Your task to perform on an android device: turn off airplane mode Image 0: 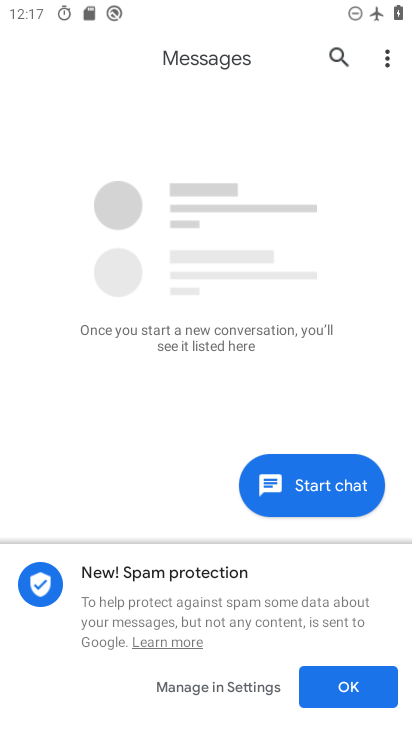
Step 0: press home button
Your task to perform on an android device: turn off airplane mode Image 1: 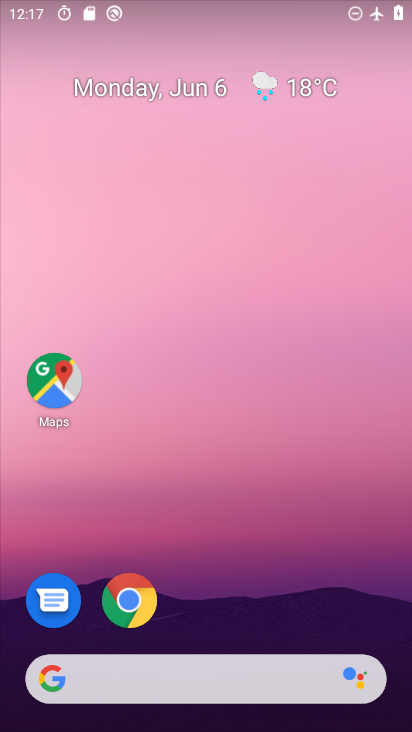
Step 1: drag from (230, 604) to (233, 131)
Your task to perform on an android device: turn off airplane mode Image 2: 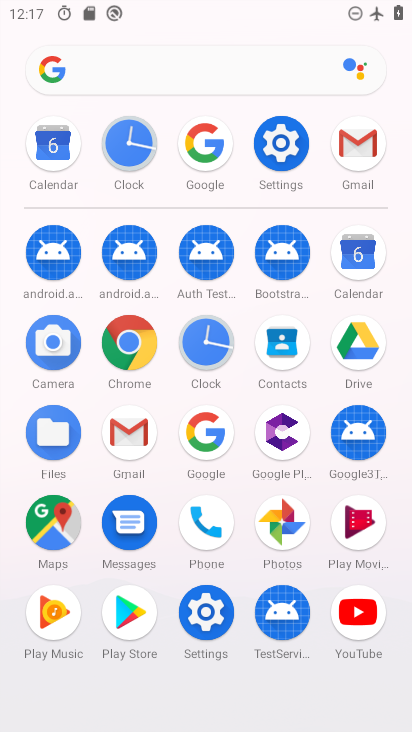
Step 2: click (272, 131)
Your task to perform on an android device: turn off airplane mode Image 3: 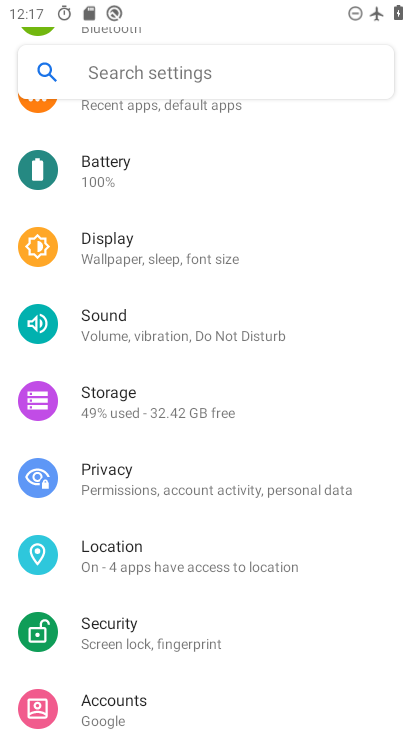
Step 3: drag from (195, 255) to (249, 619)
Your task to perform on an android device: turn off airplane mode Image 4: 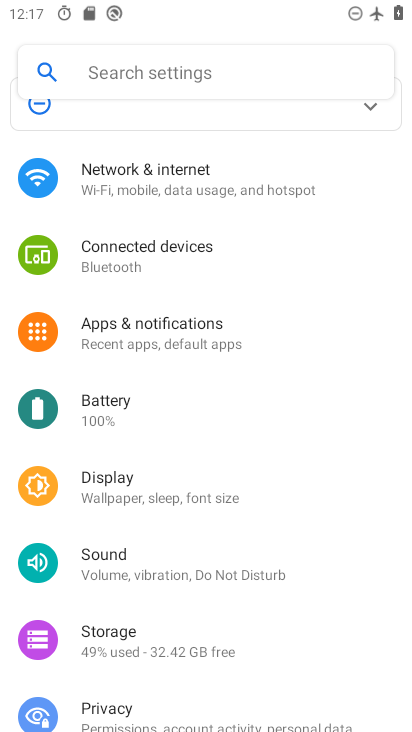
Step 4: click (171, 189)
Your task to perform on an android device: turn off airplane mode Image 5: 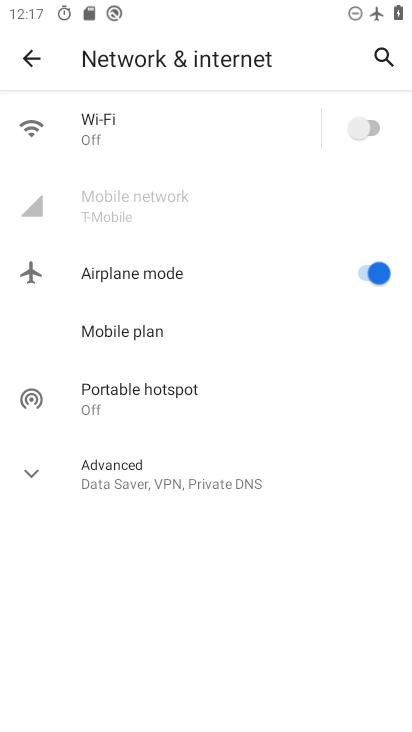
Step 5: click (372, 273)
Your task to perform on an android device: turn off airplane mode Image 6: 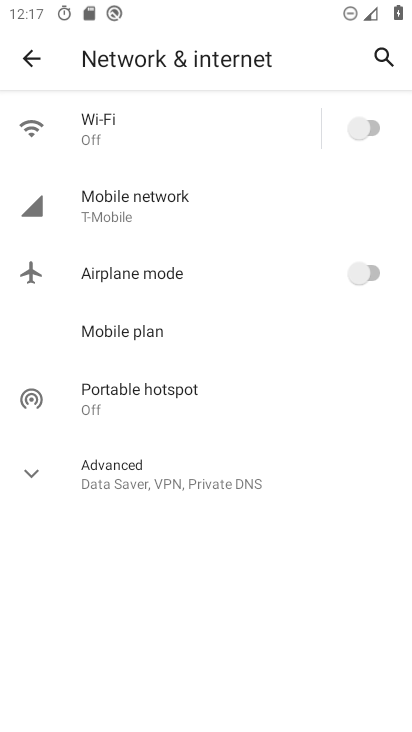
Step 6: task complete